Your task to perform on an android device: delete a single message in the gmail app Image 0: 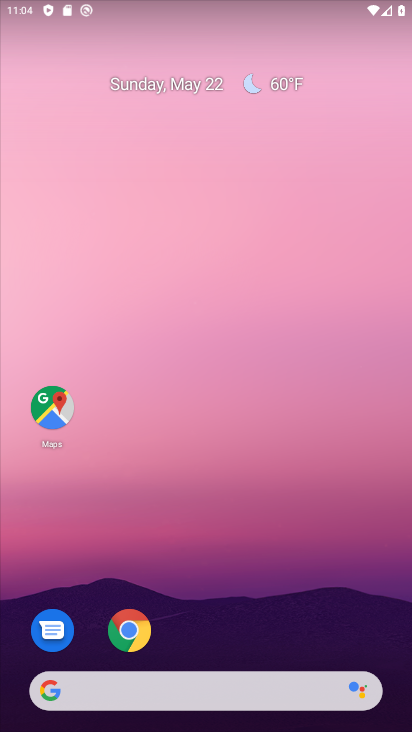
Step 0: drag from (245, 605) to (175, 57)
Your task to perform on an android device: delete a single message in the gmail app Image 1: 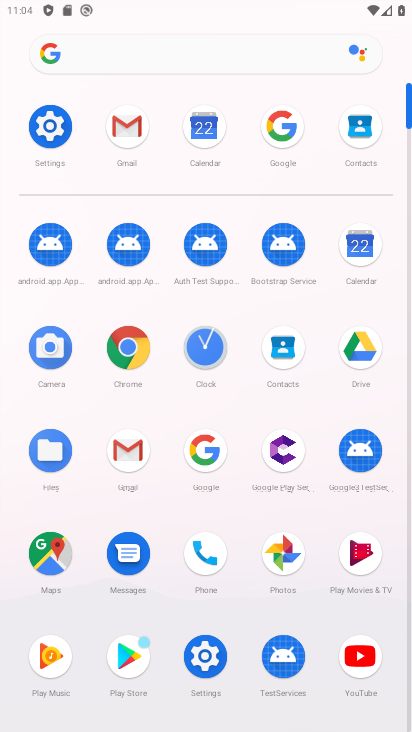
Step 1: drag from (192, 599) to (175, 412)
Your task to perform on an android device: delete a single message in the gmail app Image 2: 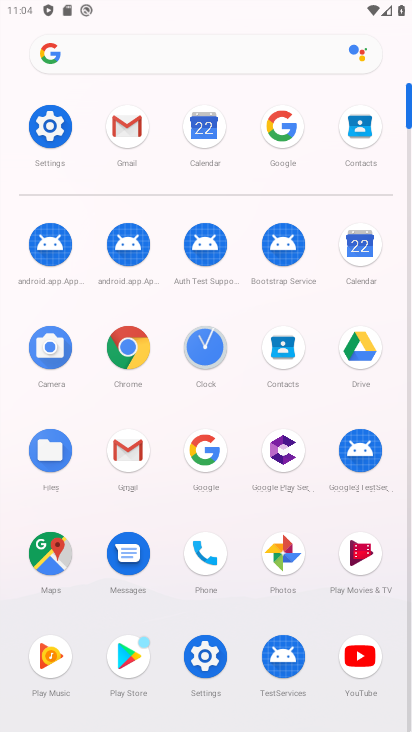
Step 2: click (127, 450)
Your task to perform on an android device: delete a single message in the gmail app Image 3: 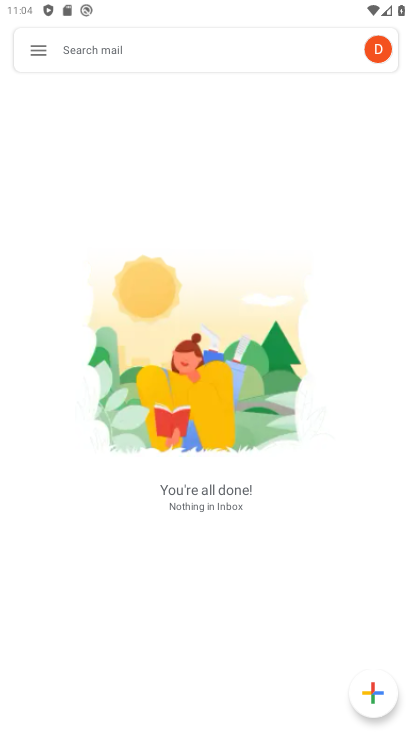
Step 3: click (44, 54)
Your task to perform on an android device: delete a single message in the gmail app Image 4: 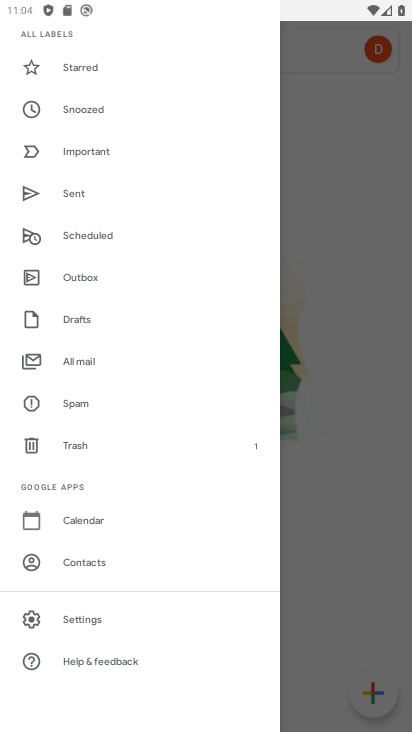
Step 4: click (89, 455)
Your task to perform on an android device: delete a single message in the gmail app Image 5: 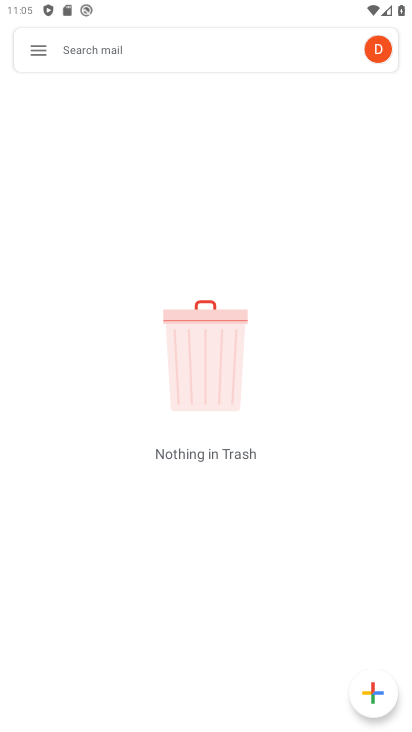
Step 5: click (37, 48)
Your task to perform on an android device: delete a single message in the gmail app Image 6: 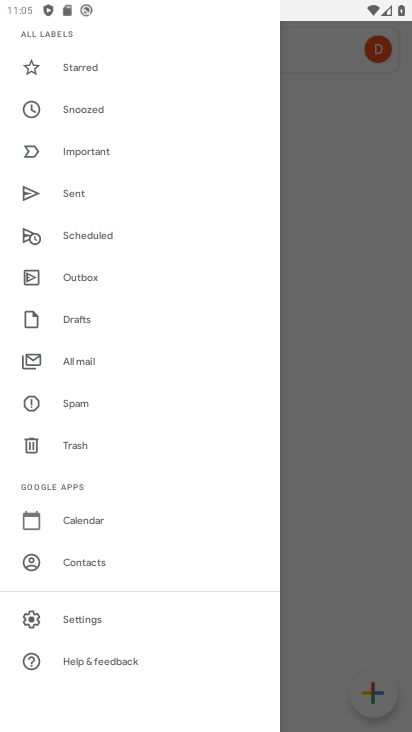
Step 6: click (88, 340)
Your task to perform on an android device: delete a single message in the gmail app Image 7: 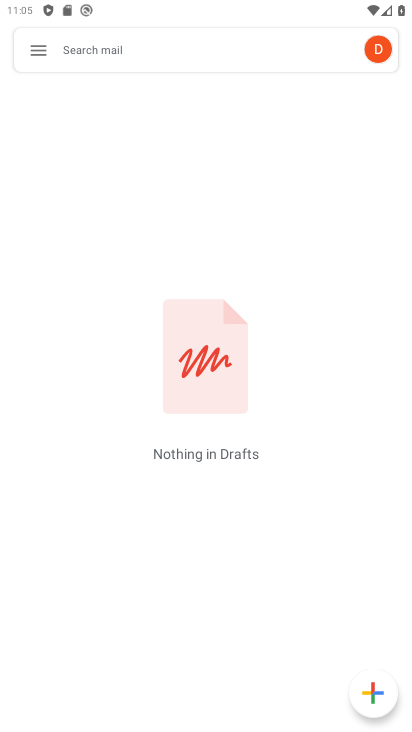
Step 7: task complete